Your task to perform on an android device: Open my contact list Image 0: 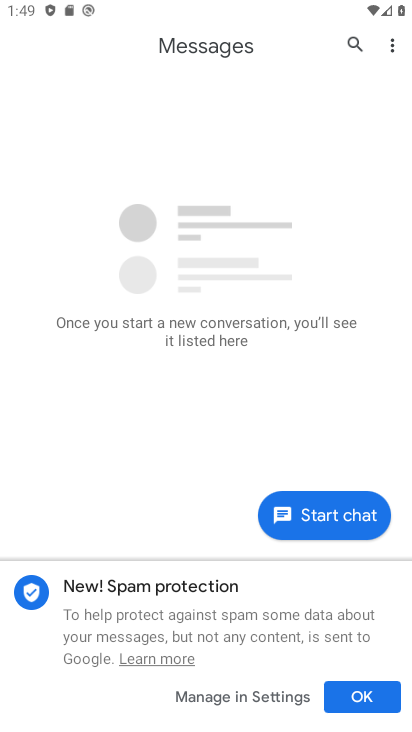
Step 0: press home button
Your task to perform on an android device: Open my contact list Image 1: 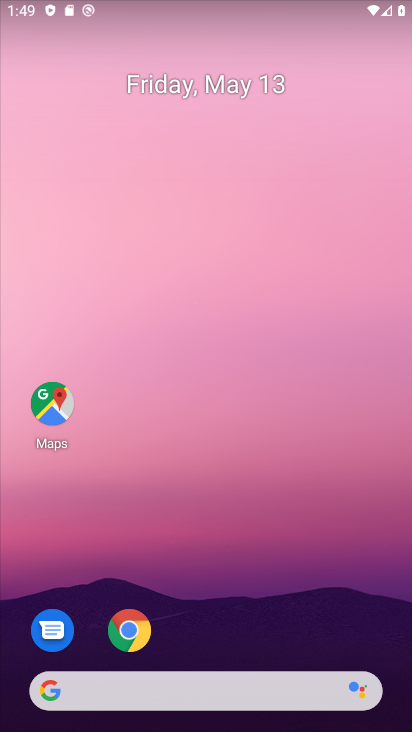
Step 1: drag from (279, 640) to (282, 101)
Your task to perform on an android device: Open my contact list Image 2: 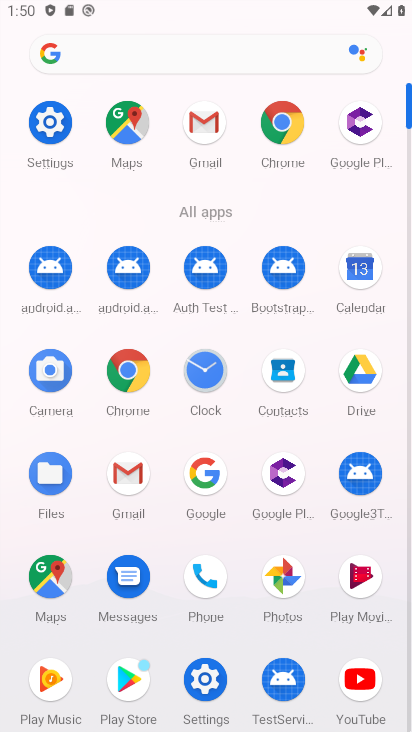
Step 2: click (287, 367)
Your task to perform on an android device: Open my contact list Image 3: 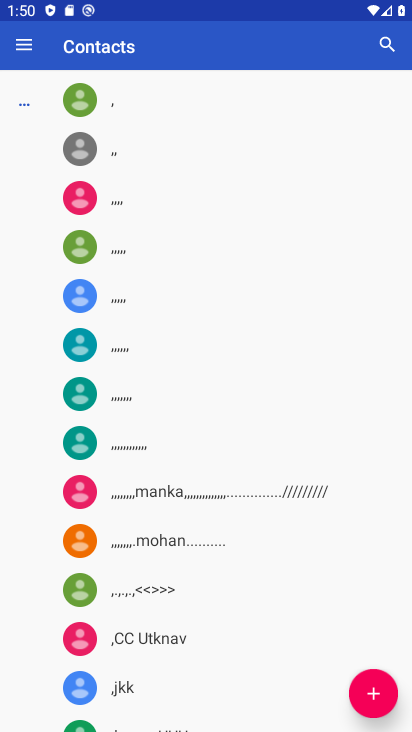
Step 3: task complete